Your task to perform on an android device: Go to accessibility settings Image 0: 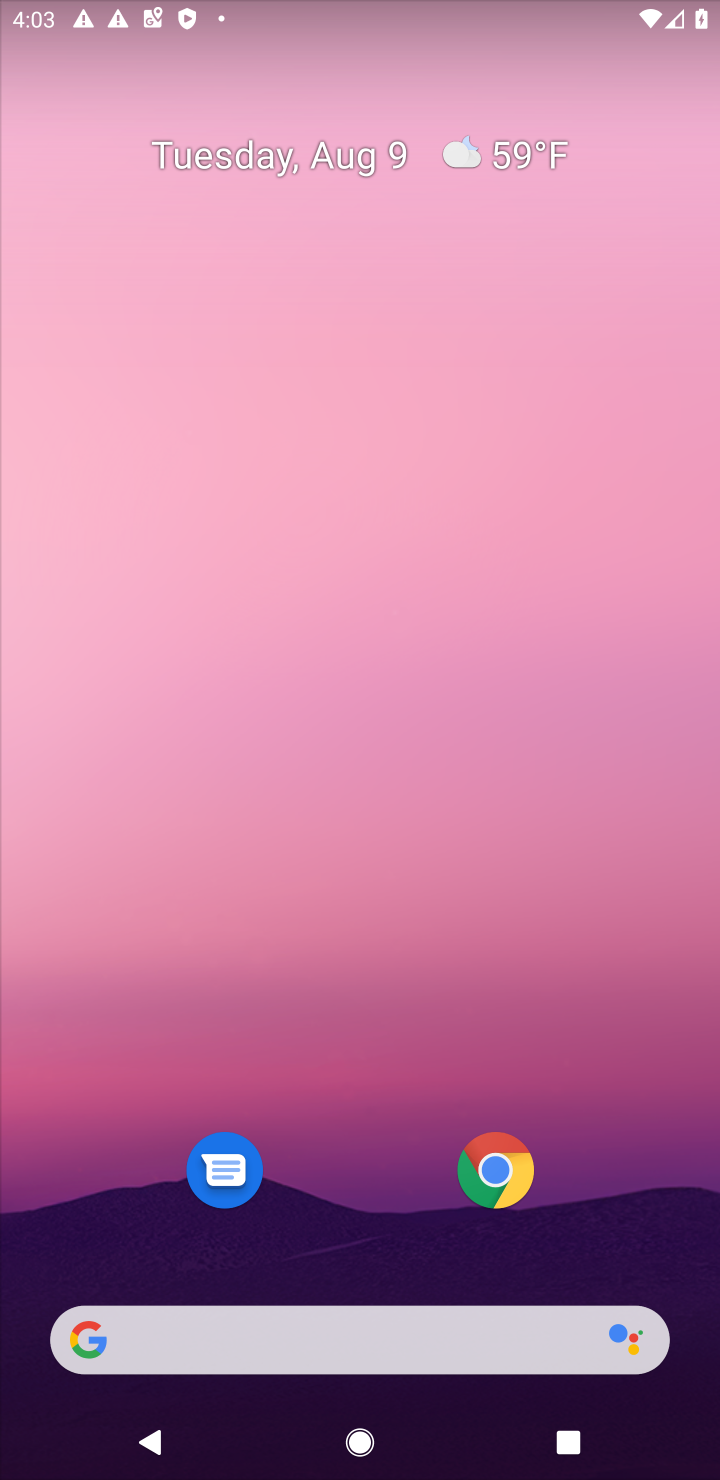
Step 0: drag from (297, 3) to (361, 824)
Your task to perform on an android device: Go to accessibility settings Image 1: 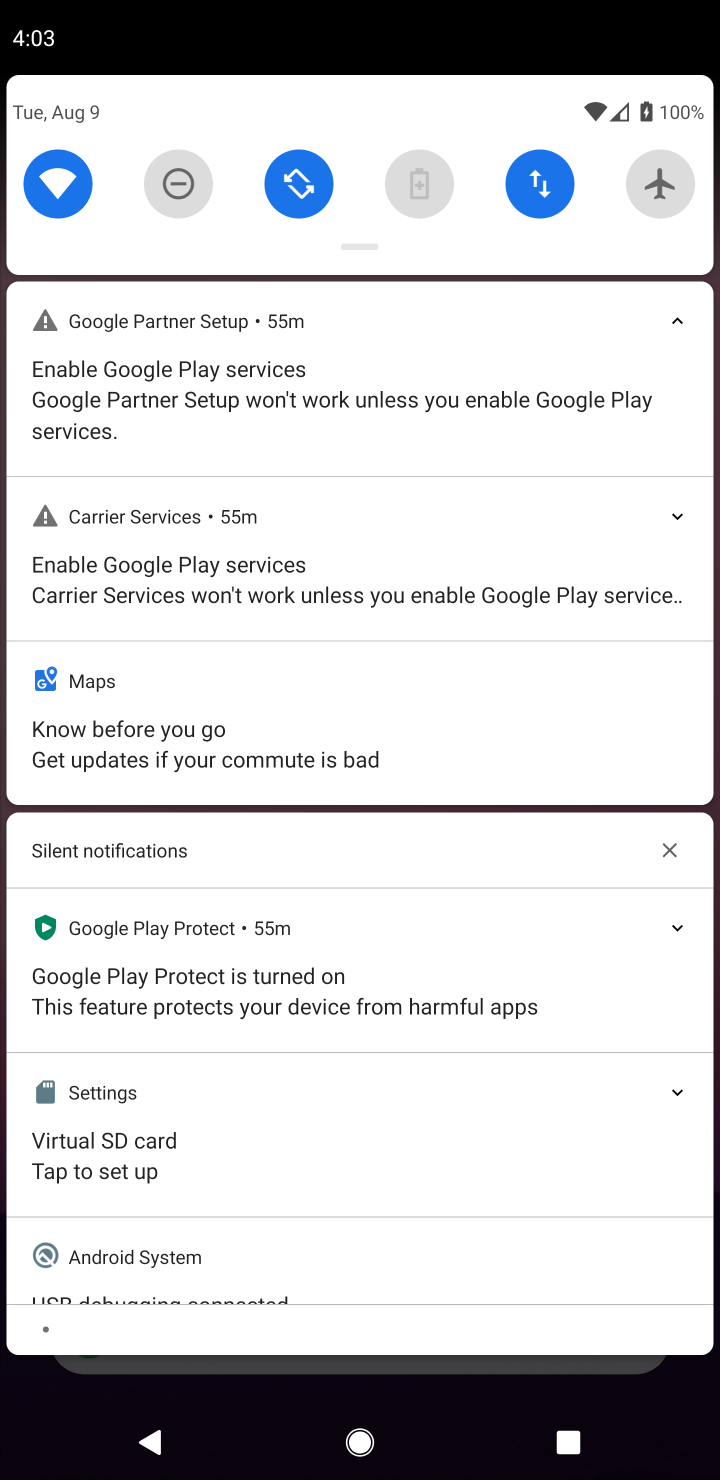
Step 1: press home button
Your task to perform on an android device: Go to accessibility settings Image 2: 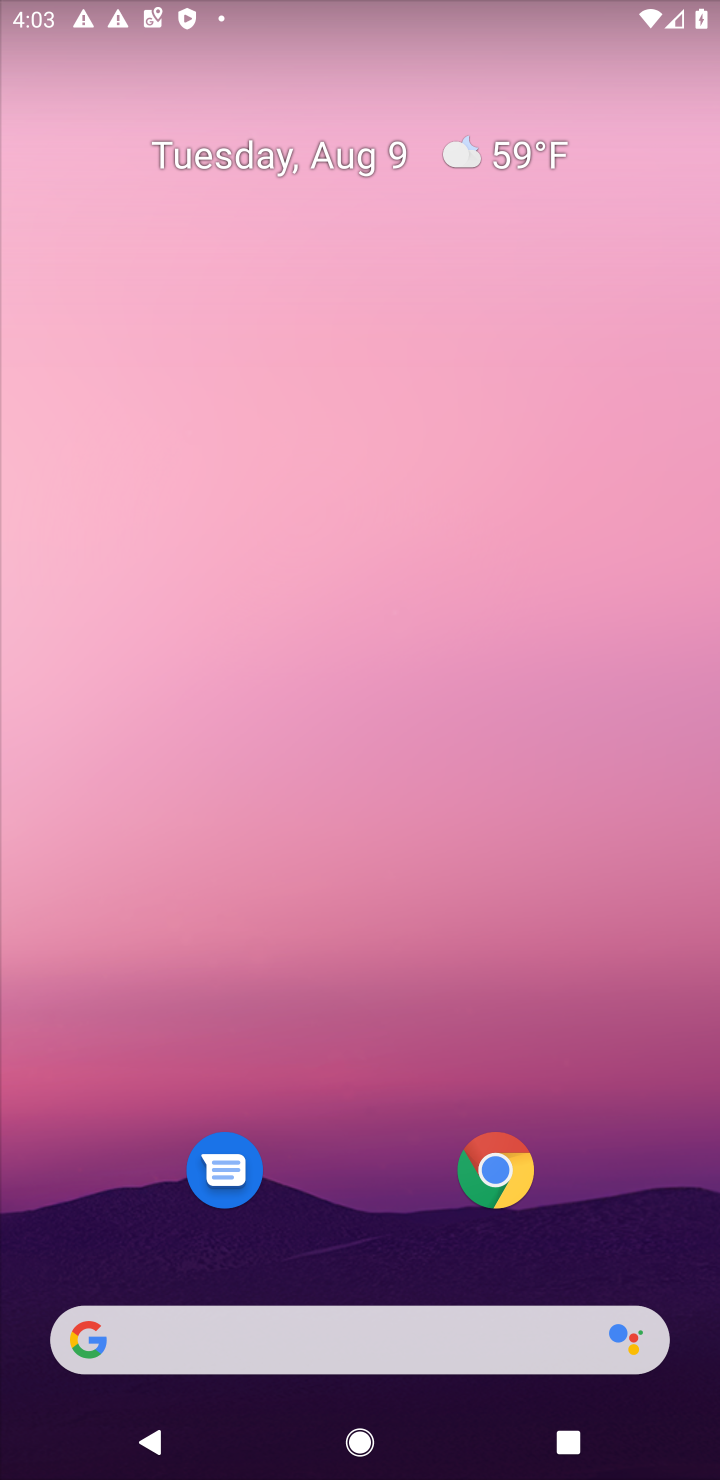
Step 2: drag from (315, 551) to (349, 181)
Your task to perform on an android device: Go to accessibility settings Image 3: 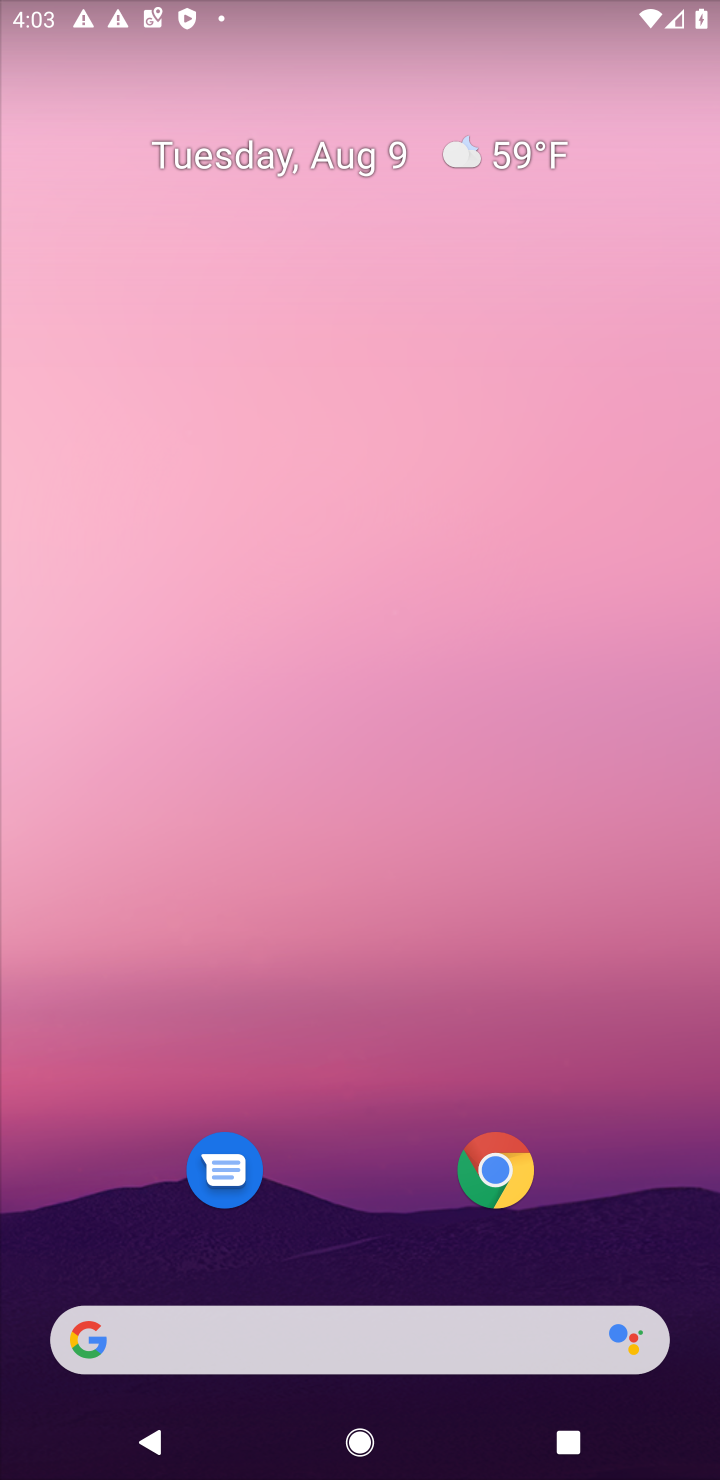
Step 3: drag from (377, 1067) to (347, 128)
Your task to perform on an android device: Go to accessibility settings Image 4: 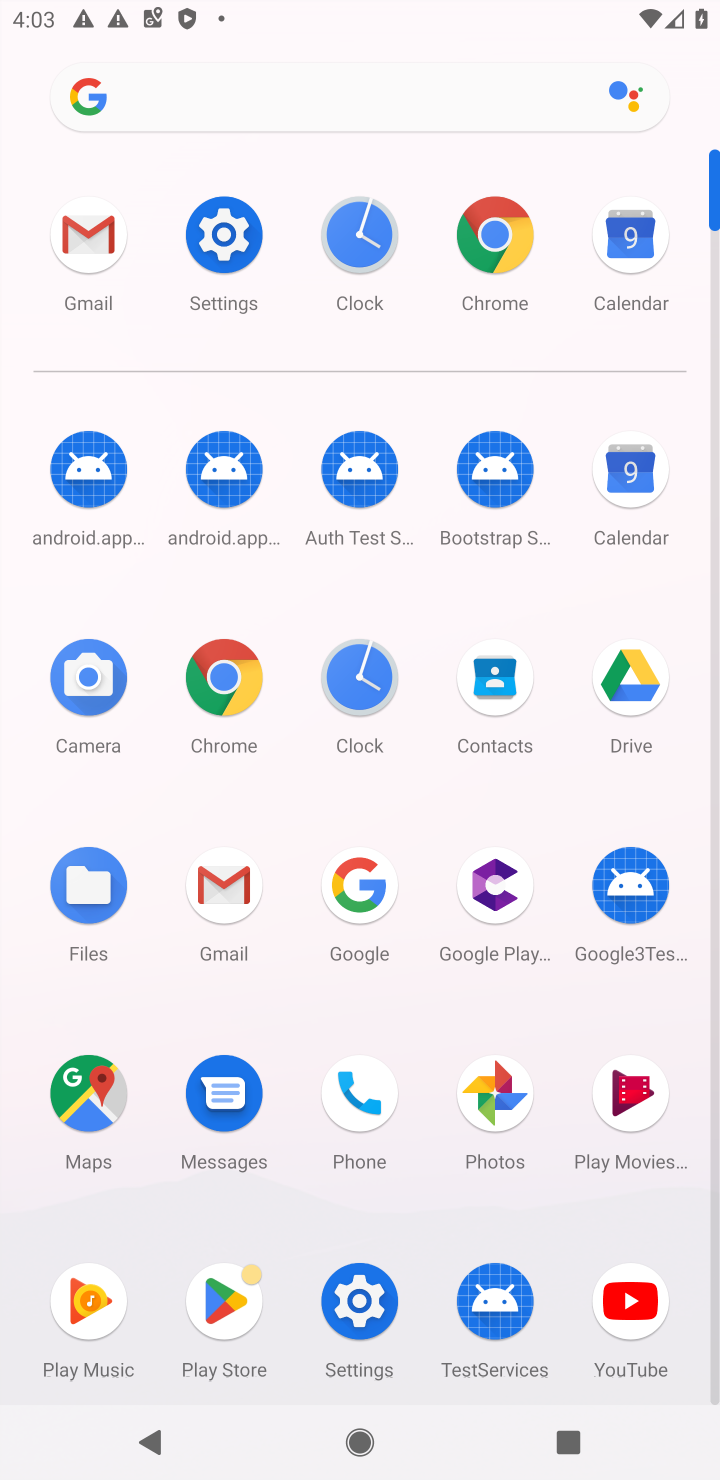
Step 4: click (222, 228)
Your task to perform on an android device: Go to accessibility settings Image 5: 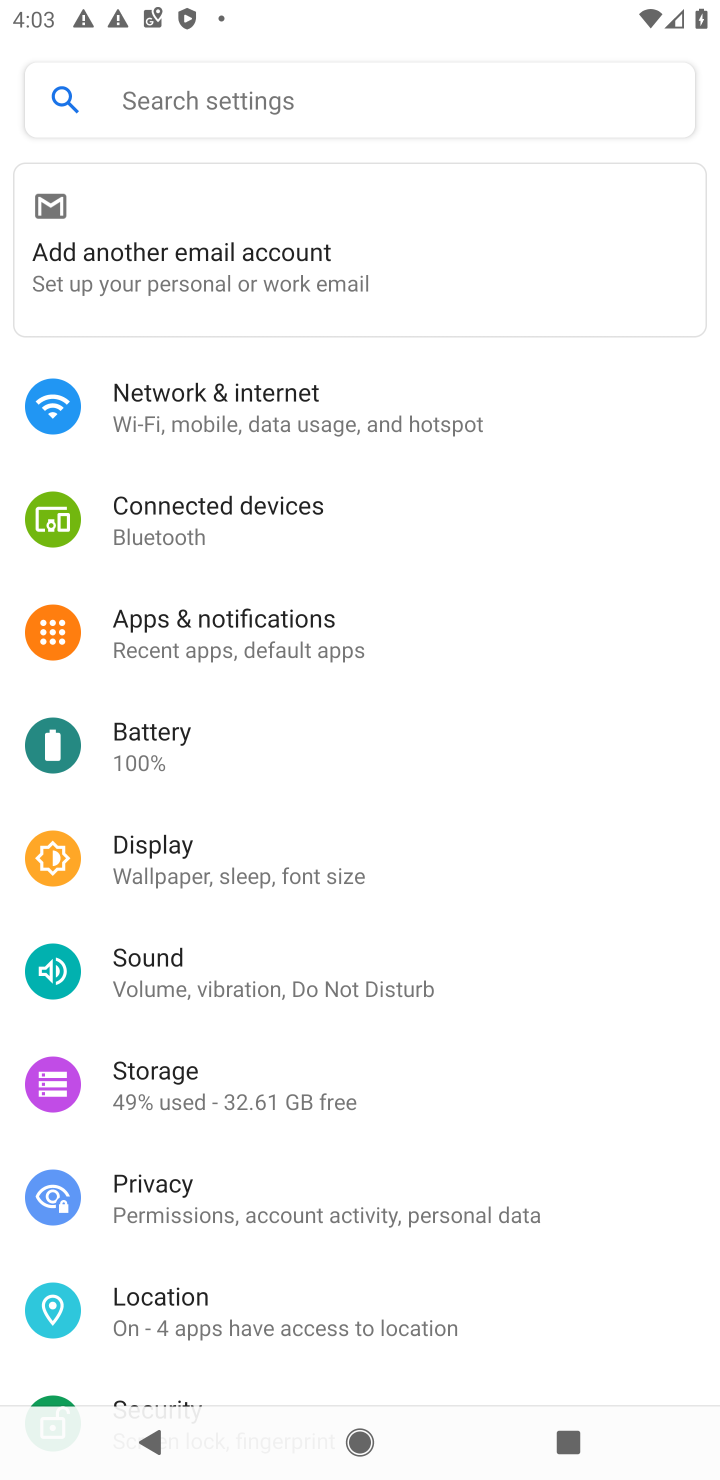
Step 5: drag from (541, 1266) to (493, 482)
Your task to perform on an android device: Go to accessibility settings Image 6: 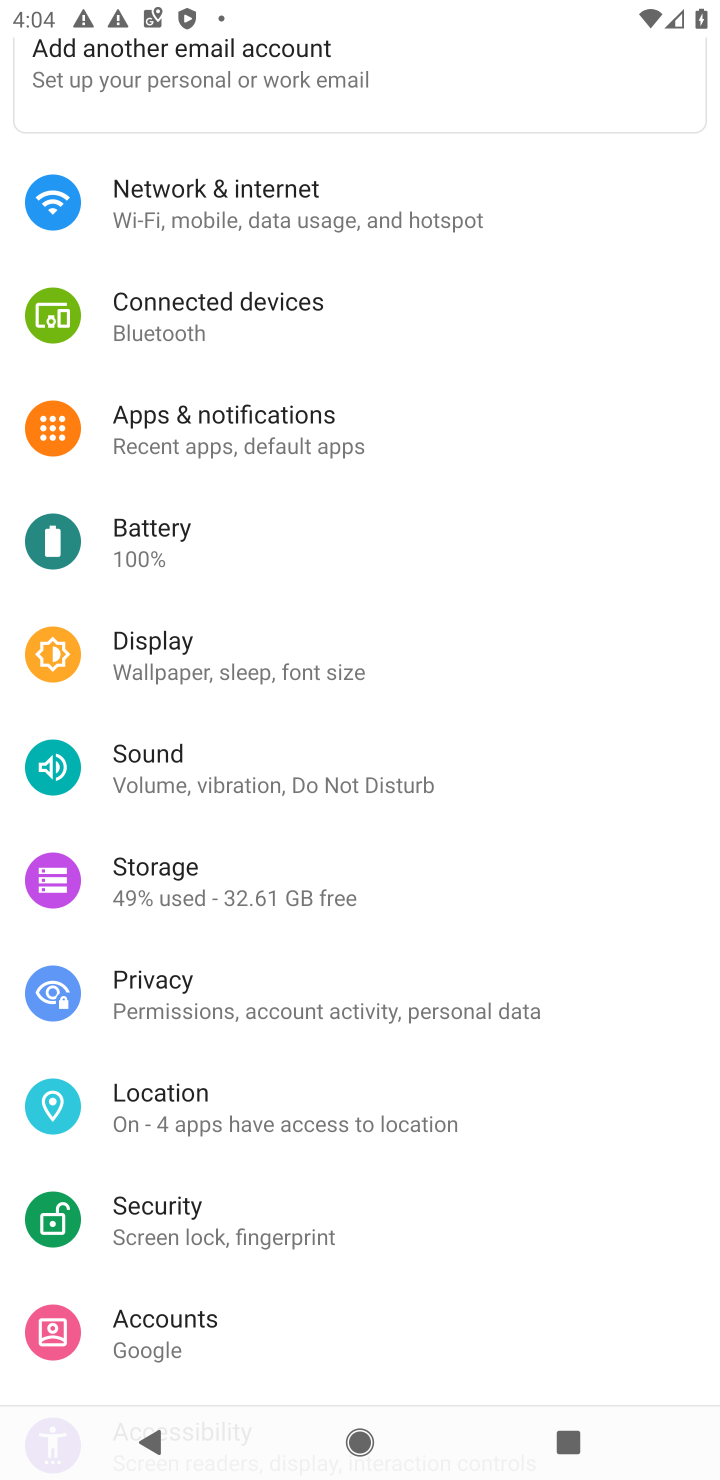
Step 6: drag from (342, 1194) to (284, 462)
Your task to perform on an android device: Go to accessibility settings Image 7: 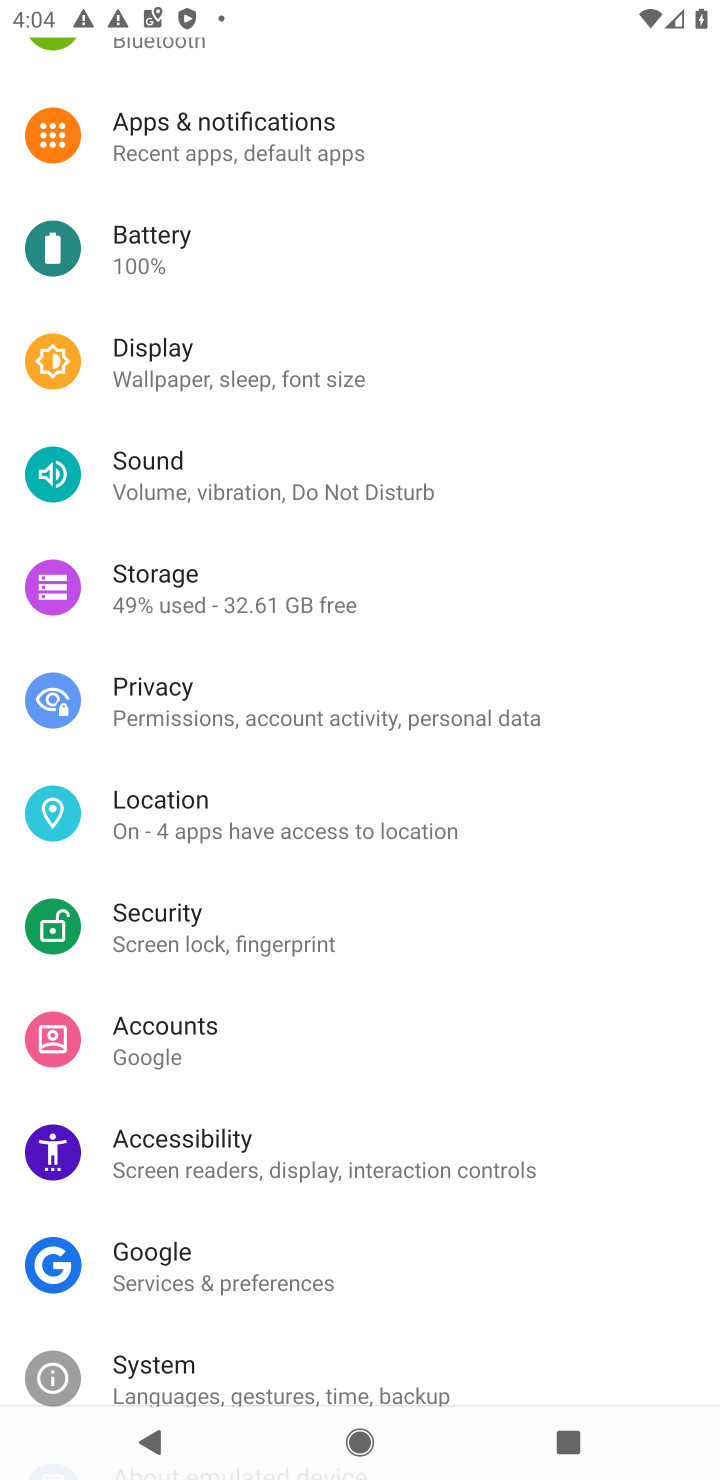
Step 7: click (274, 1141)
Your task to perform on an android device: Go to accessibility settings Image 8: 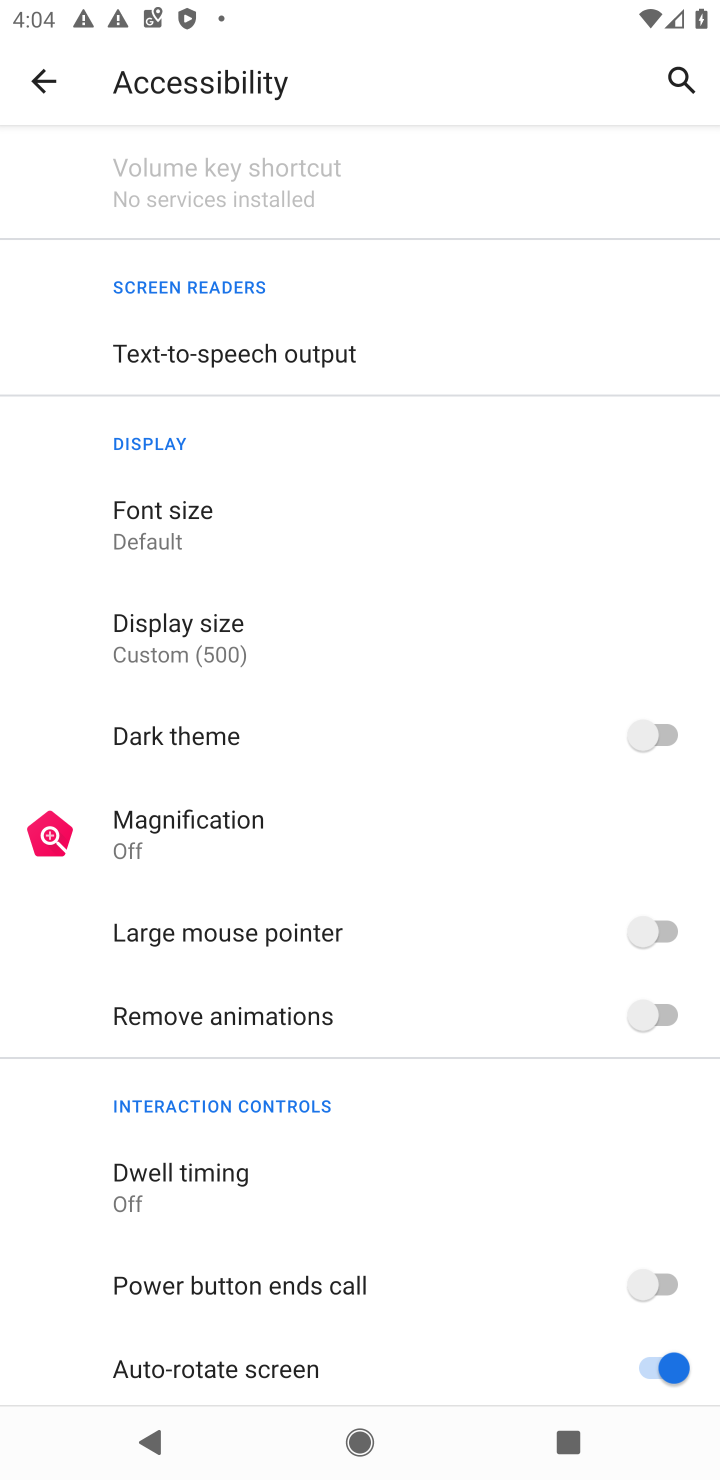
Step 8: task complete